Your task to perform on an android device: check the backup settings in the google photos Image 0: 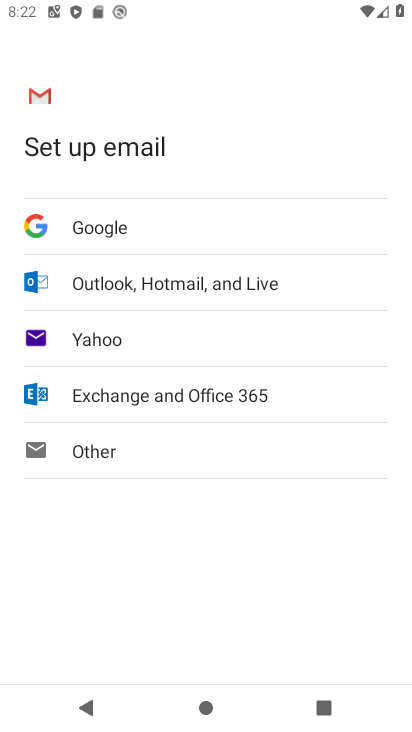
Step 0: press home button
Your task to perform on an android device: check the backup settings in the google photos Image 1: 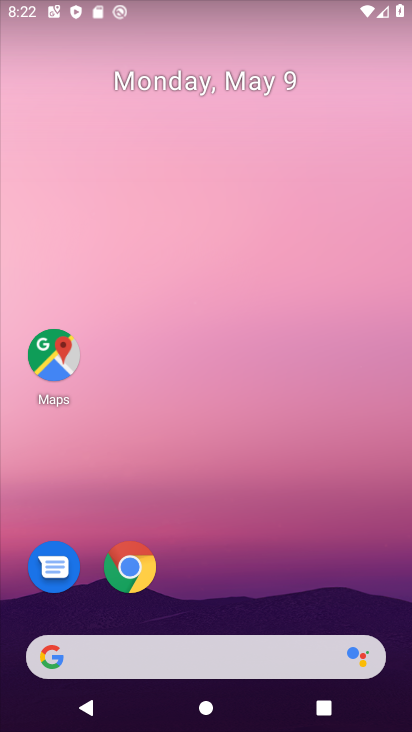
Step 1: drag from (318, 579) to (323, 218)
Your task to perform on an android device: check the backup settings in the google photos Image 2: 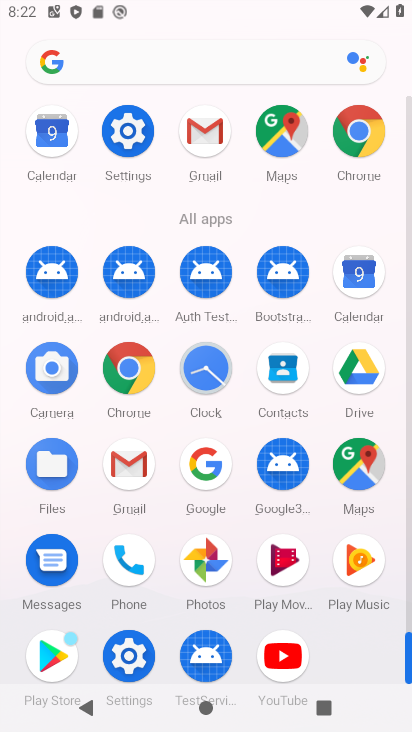
Step 2: click (216, 553)
Your task to perform on an android device: check the backup settings in the google photos Image 3: 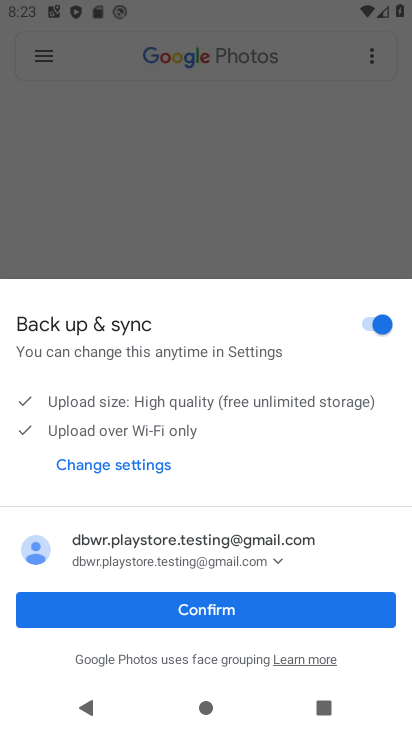
Step 3: click (220, 612)
Your task to perform on an android device: check the backup settings in the google photos Image 4: 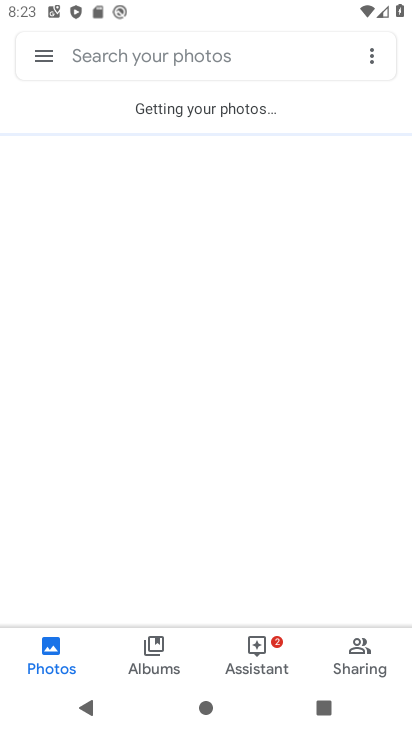
Step 4: click (46, 56)
Your task to perform on an android device: check the backup settings in the google photos Image 5: 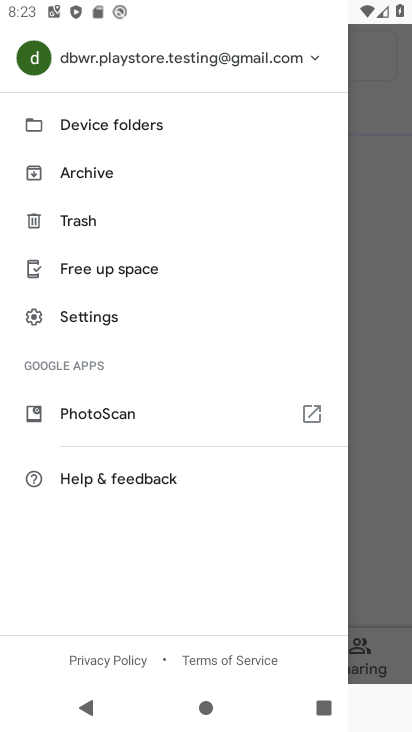
Step 5: click (109, 323)
Your task to perform on an android device: check the backup settings in the google photos Image 6: 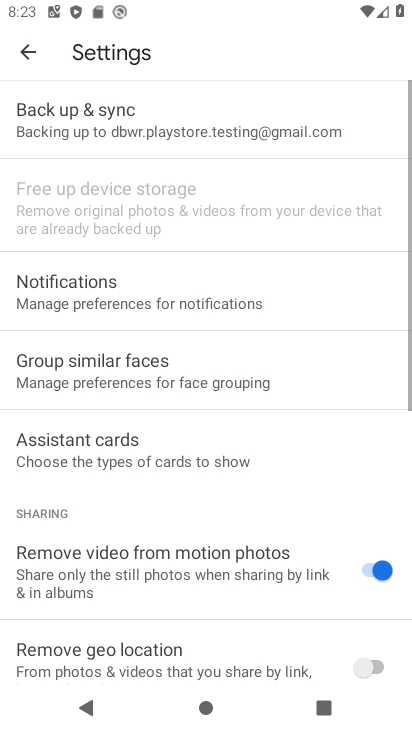
Step 6: click (169, 101)
Your task to perform on an android device: check the backup settings in the google photos Image 7: 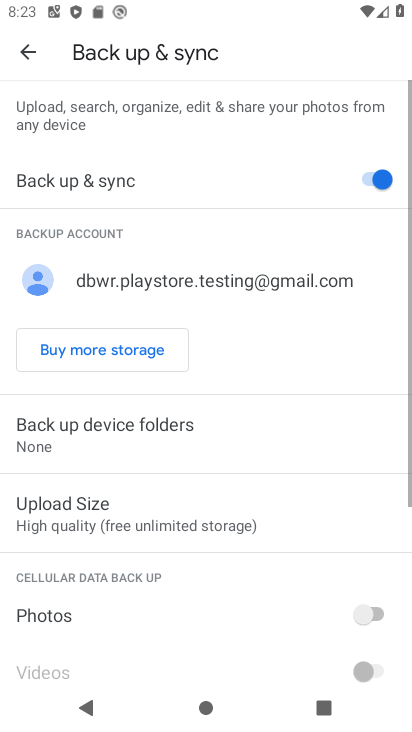
Step 7: task complete